Your task to perform on an android device: empty trash in the gmail app Image 0: 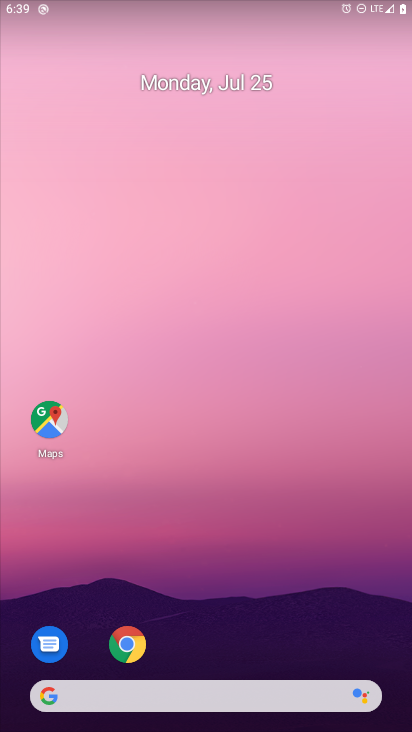
Step 0: press home button
Your task to perform on an android device: empty trash in the gmail app Image 1: 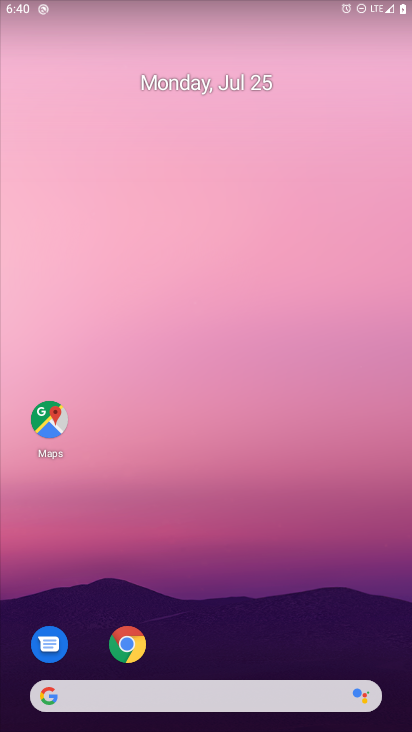
Step 1: drag from (249, 644) to (255, 55)
Your task to perform on an android device: empty trash in the gmail app Image 2: 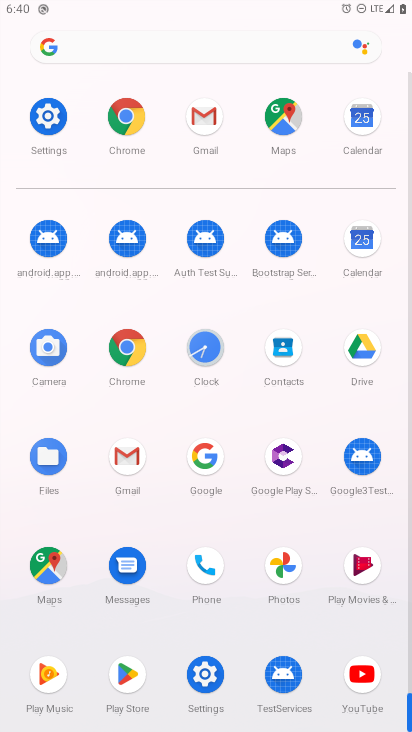
Step 2: click (201, 111)
Your task to perform on an android device: empty trash in the gmail app Image 3: 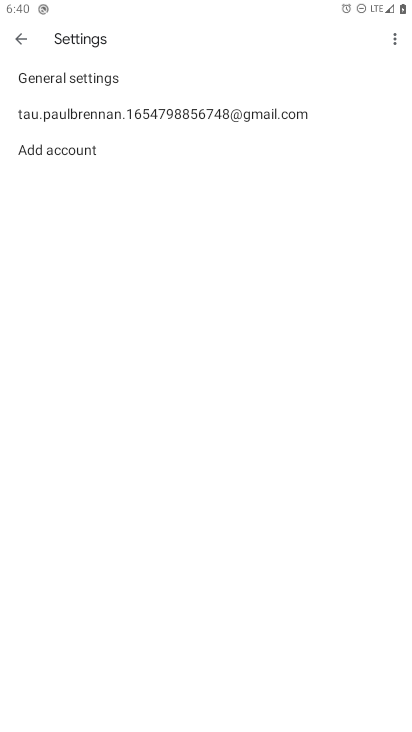
Step 3: click (17, 35)
Your task to perform on an android device: empty trash in the gmail app Image 4: 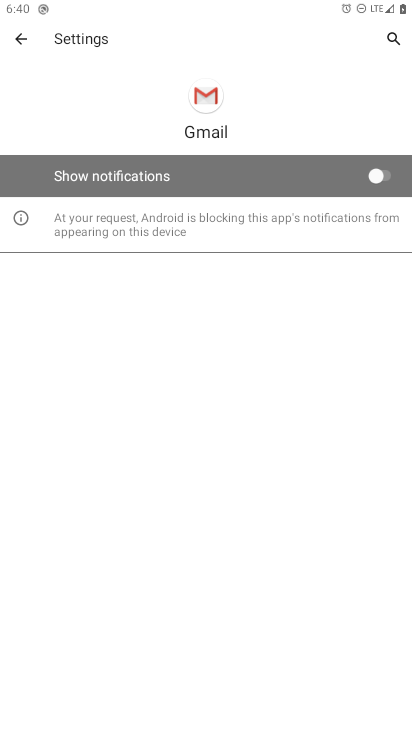
Step 4: click (17, 35)
Your task to perform on an android device: empty trash in the gmail app Image 5: 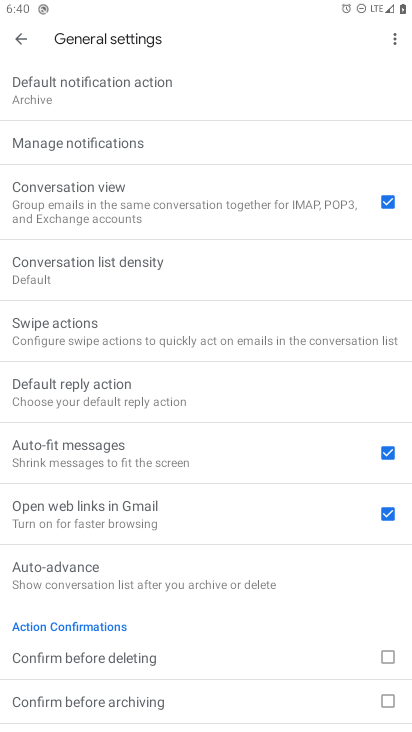
Step 5: click (19, 38)
Your task to perform on an android device: empty trash in the gmail app Image 6: 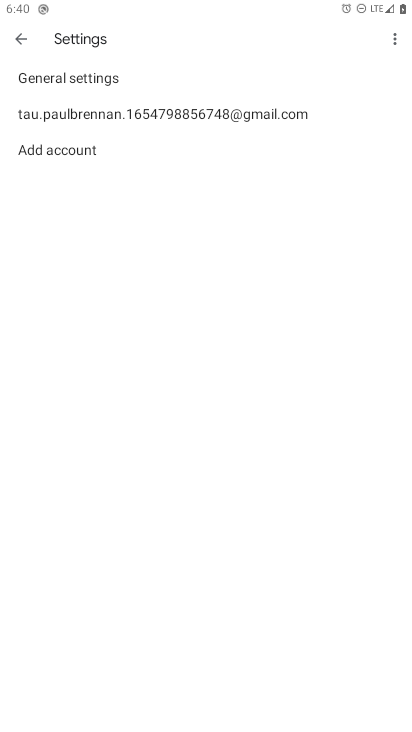
Step 6: click (19, 38)
Your task to perform on an android device: empty trash in the gmail app Image 7: 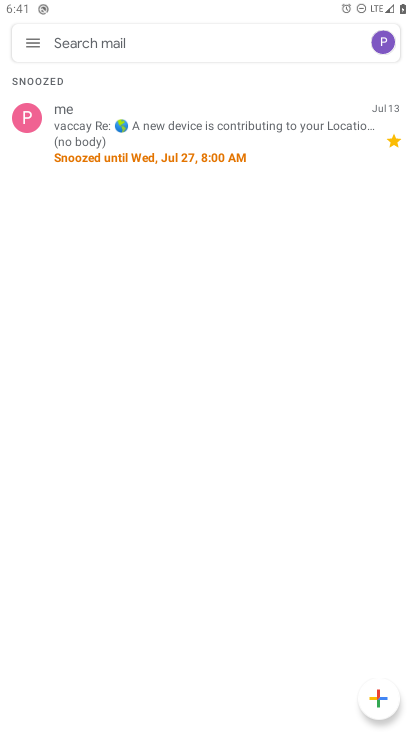
Step 7: click (19, 38)
Your task to perform on an android device: empty trash in the gmail app Image 8: 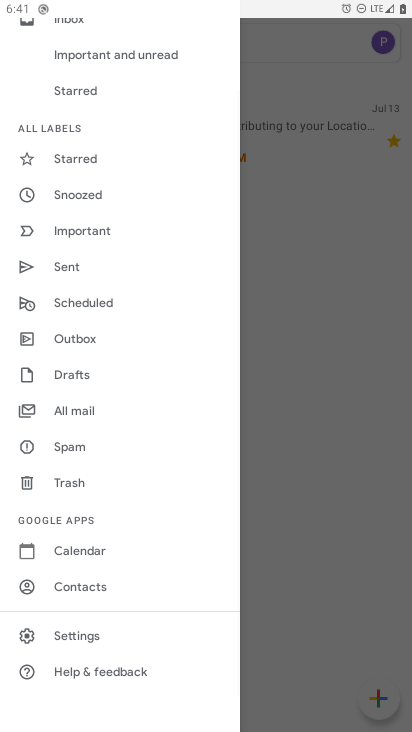
Step 8: click (71, 485)
Your task to perform on an android device: empty trash in the gmail app Image 9: 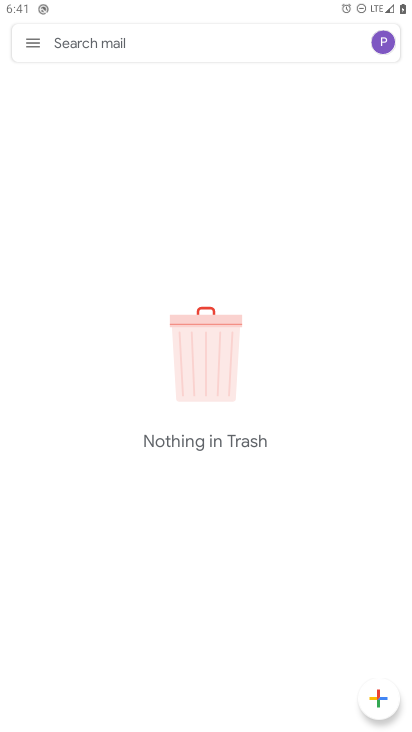
Step 9: task complete